Your task to perform on an android device: Open Chrome and go to settings Image 0: 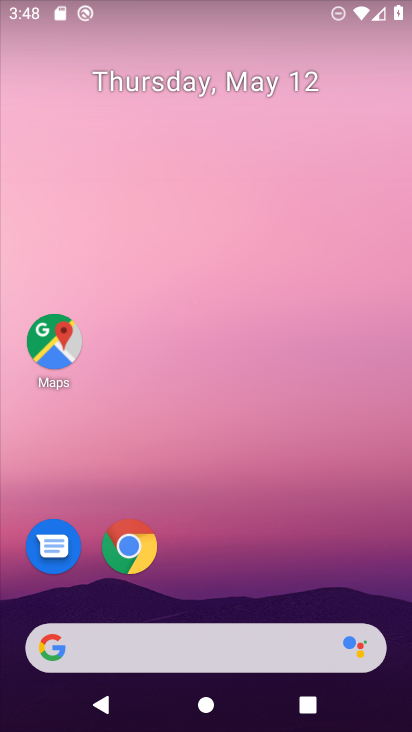
Step 0: drag from (239, 562) to (301, 295)
Your task to perform on an android device: Open Chrome and go to settings Image 1: 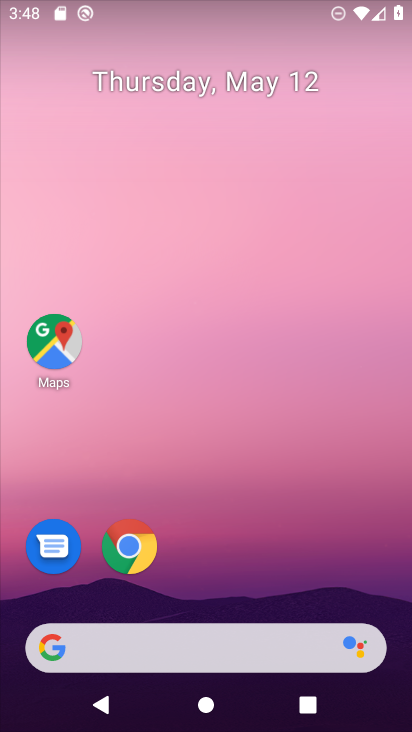
Step 1: drag from (236, 558) to (268, 225)
Your task to perform on an android device: Open Chrome and go to settings Image 2: 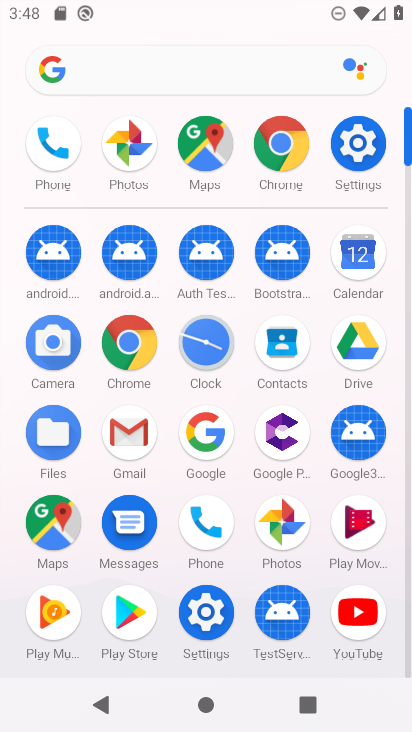
Step 2: click (274, 129)
Your task to perform on an android device: Open Chrome and go to settings Image 3: 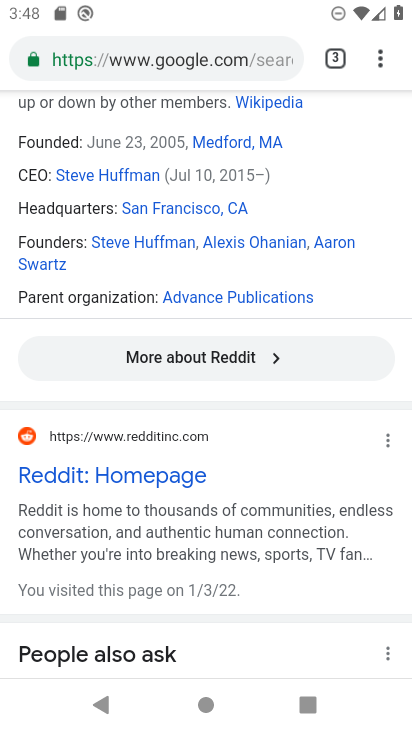
Step 3: click (359, 51)
Your task to perform on an android device: Open Chrome and go to settings Image 4: 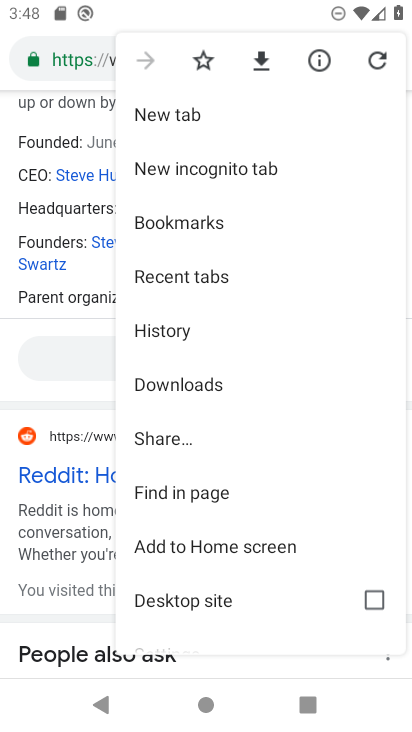
Step 4: drag from (263, 558) to (265, 206)
Your task to perform on an android device: Open Chrome and go to settings Image 5: 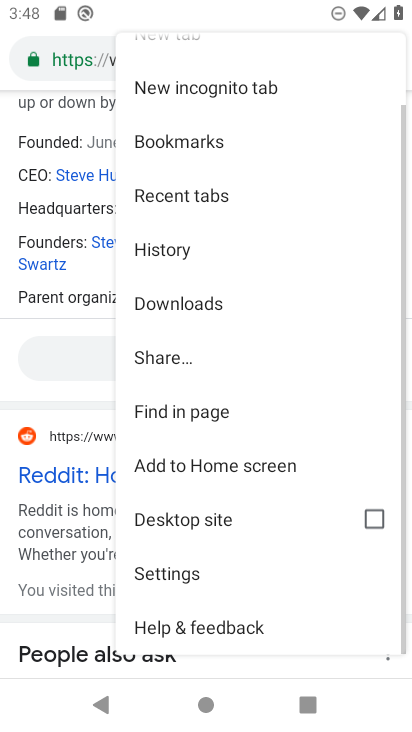
Step 5: click (163, 573)
Your task to perform on an android device: Open Chrome and go to settings Image 6: 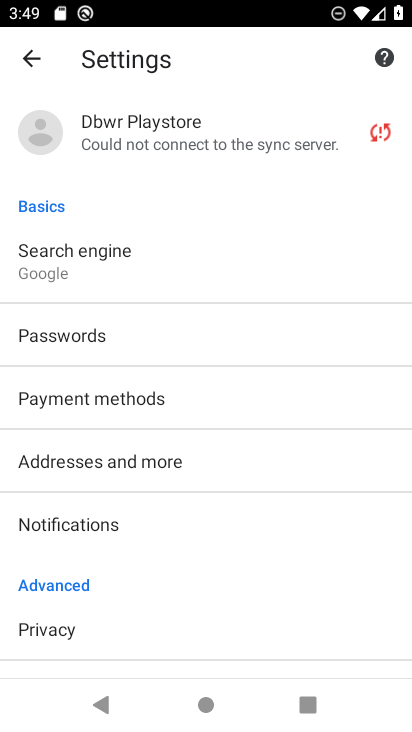
Step 6: task complete